Your task to perform on an android device: Open my contact list Image 0: 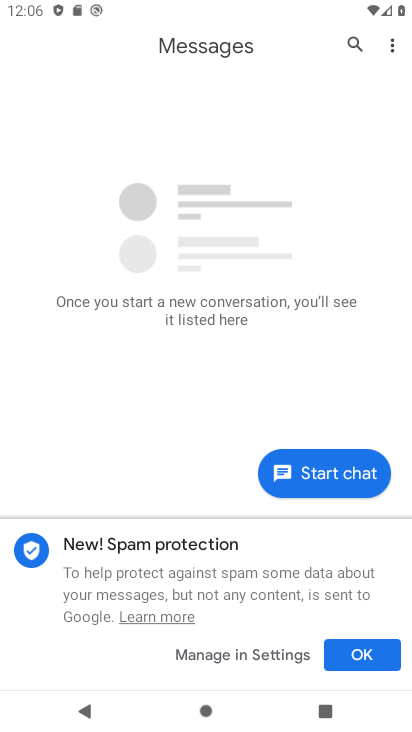
Step 0: press home button
Your task to perform on an android device: Open my contact list Image 1: 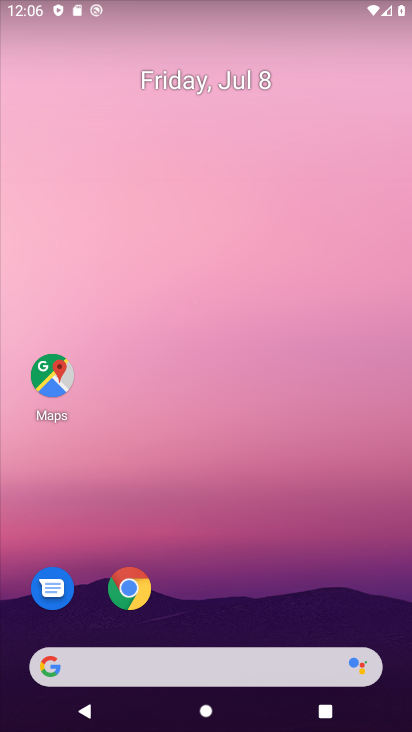
Step 1: drag from (179, 538) to (179, 183)
Your task to perform on an android device: Open my contact list Image 2: 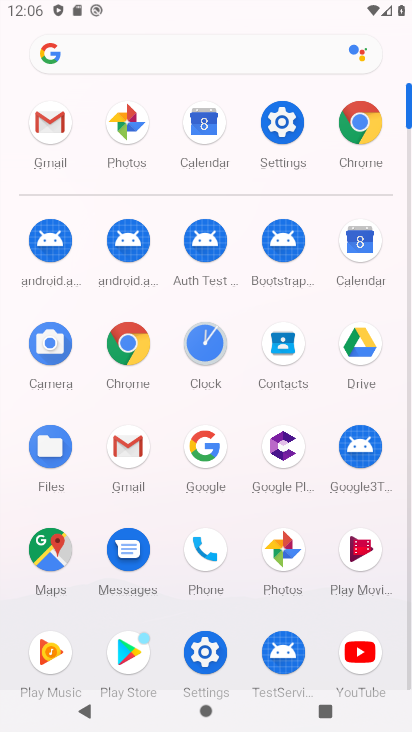
Step 2: click (293, 355)
Your task to perform on an android device: Open my contact list Image 3: 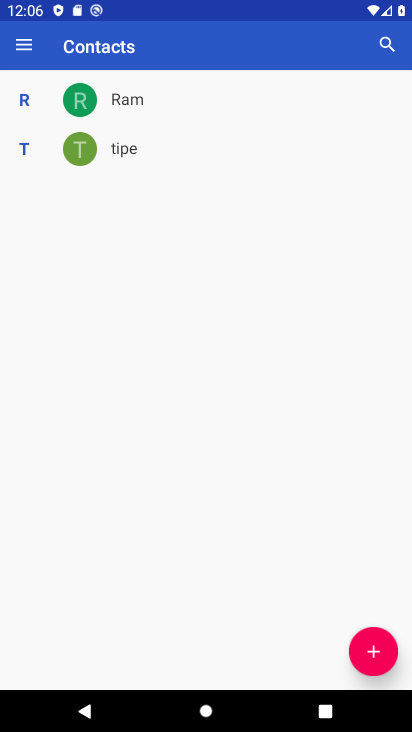
Step 3: task complete